Your task to perform on an android device: Open Android settings Image 0: 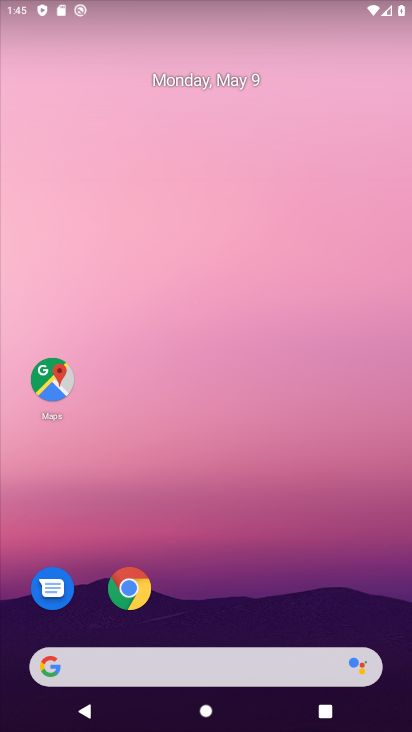
Step 0: drag from (331, 612) to (275, 74)
Your task to perform on an android device: Open Android settings Image 1: 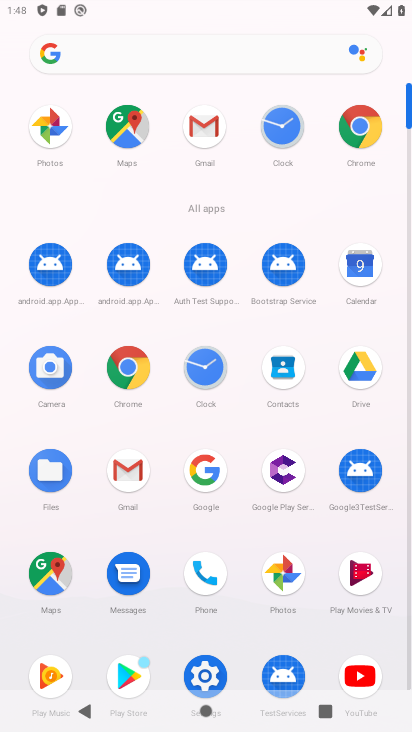
Step 1: click (205, 675)
Your task to perform on an android device: Open Android settings Image 2: 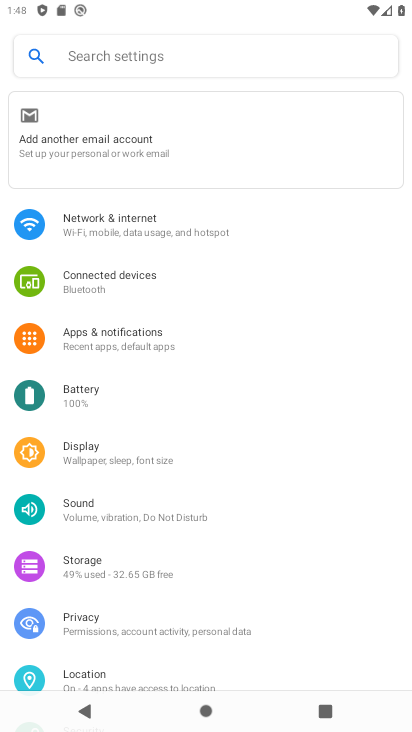
Step 2: drag from (106, 615) to (176, 114)
Your task to perform on an android device: Open Android settings Image 3: 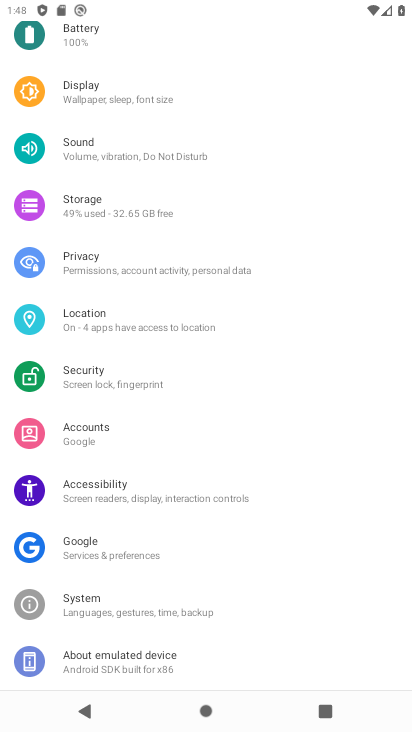
Step 3: click (123, 654)
Your task to perform on an android device: Open Android settings Image 4: 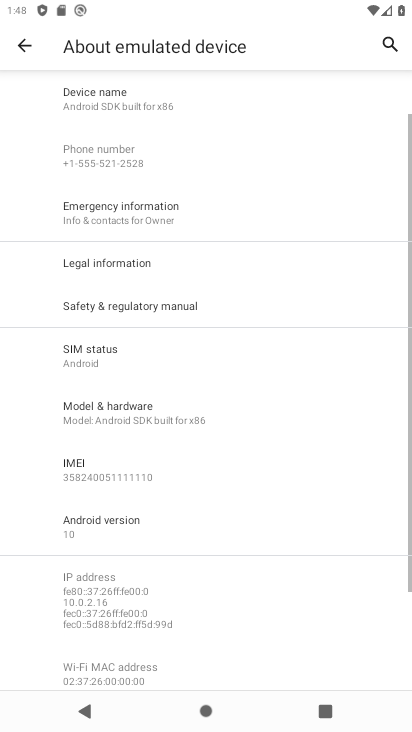
Step 4: click (142, 534)
Your task to perform on an android device: Open Android settings Image 5: 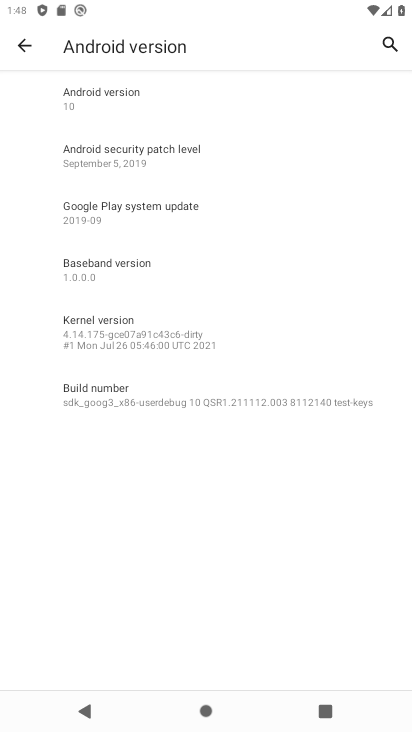
Step 5: task complete